Your task to perform on an android device: What is the recent news? Image 0: 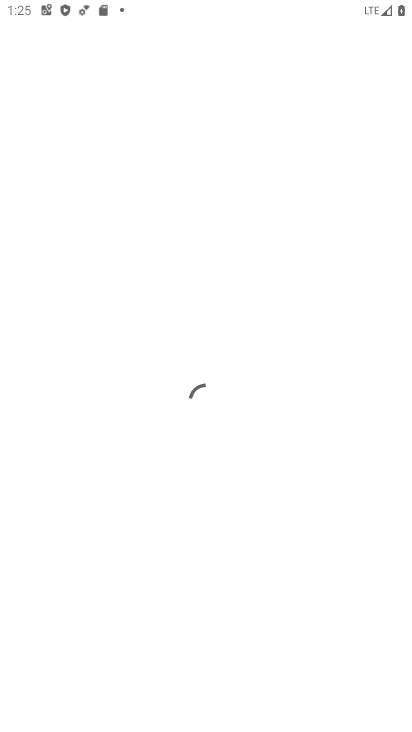
Step 0: press home button
Your task to perform on an android device: What is the recent news? Image 1: 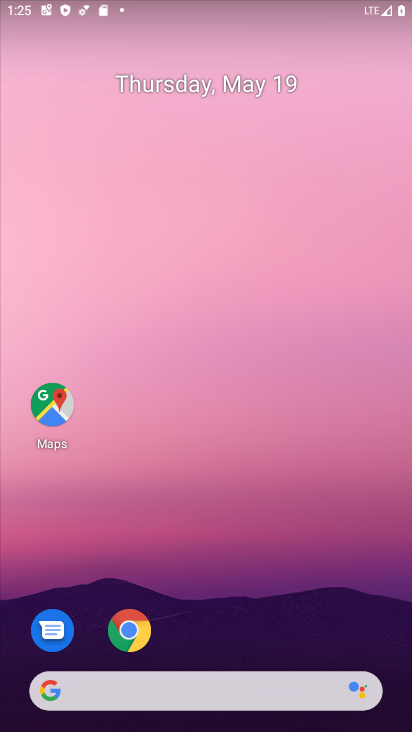
Step 1: drag from (225, 651) to (129, 135)
Your task to perform on an android device: What is the recent news? Image 2: 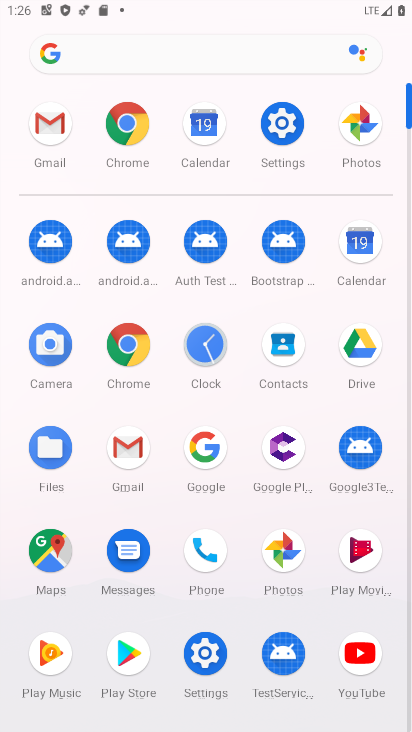
Step 2: click (190, 426)
Your task to perform on an android device: What is the recent news? Image 3: 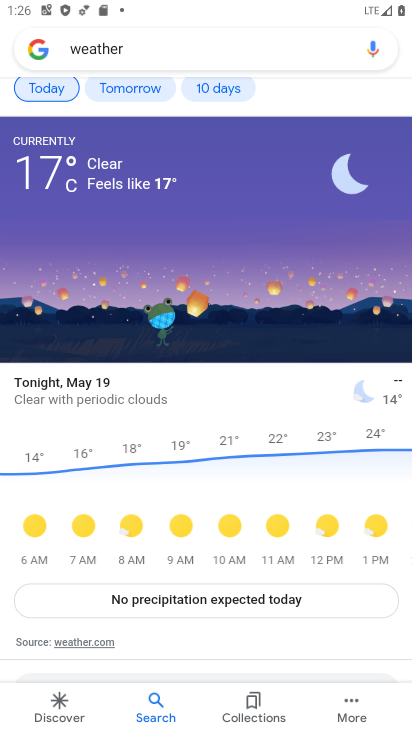
Step 3: click (284, 63)
Your task to perform on an android device: What is the recent news? Image 4: 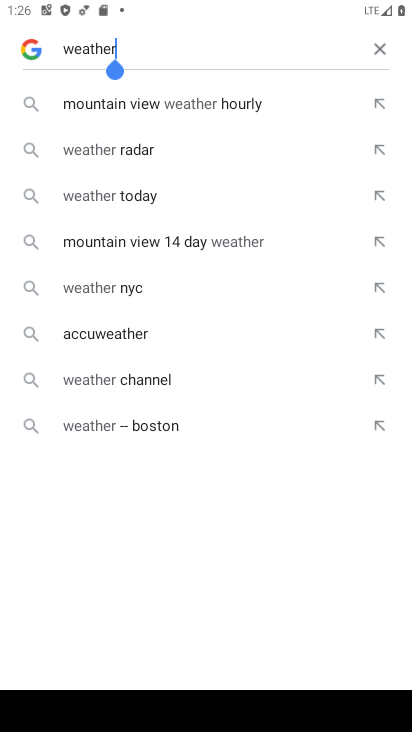
Step 4: click (377, 47)
Your task to perform on an android device: What is the recent news? Image 5: 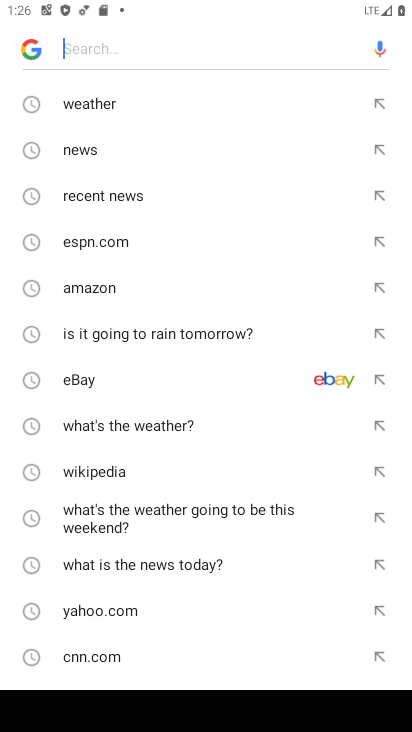
Step 5: click (88, 145)
Your task to perform on an android device: What is the recent news? Image 6: 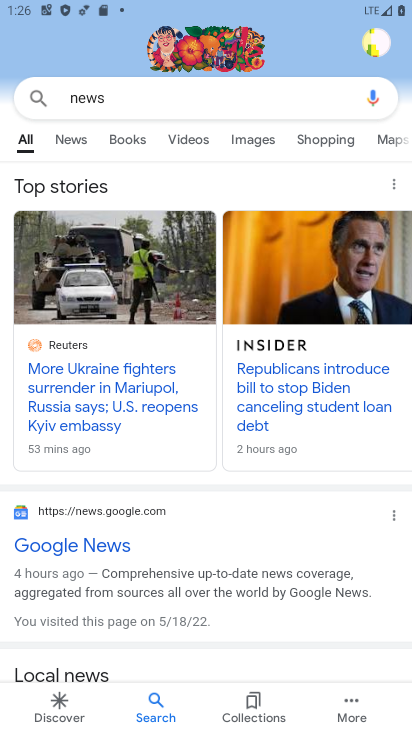
Step 6: task complete